Your task to perform on an android device: check google app version Image 0: 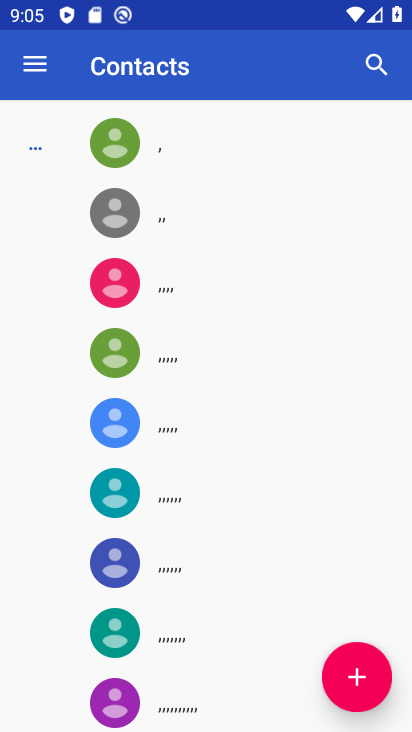
Step 0: press home button
Your task to perform on an android device: check google app version Image 1: 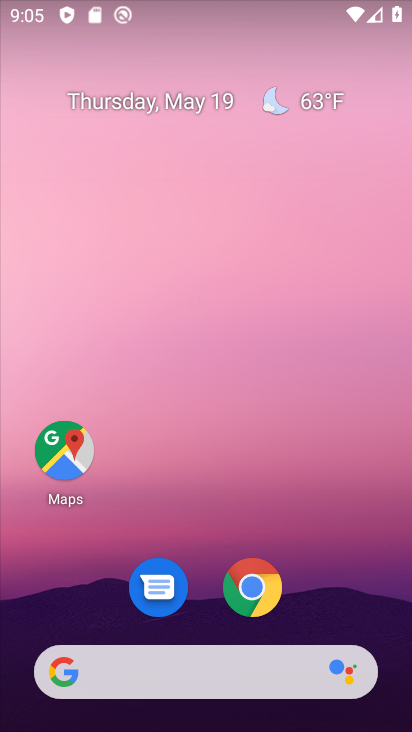
Step 1: drag from (212, 635) to (136, 37)
Your task to perform on an android device: check google app version Image 2: 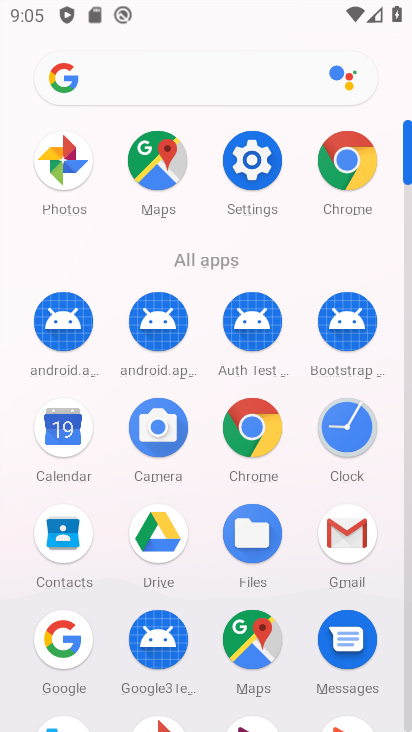
Step 2: drag from (60, 629) to (208, 284)
Your task to perform on an android device: check google app version Image 3: 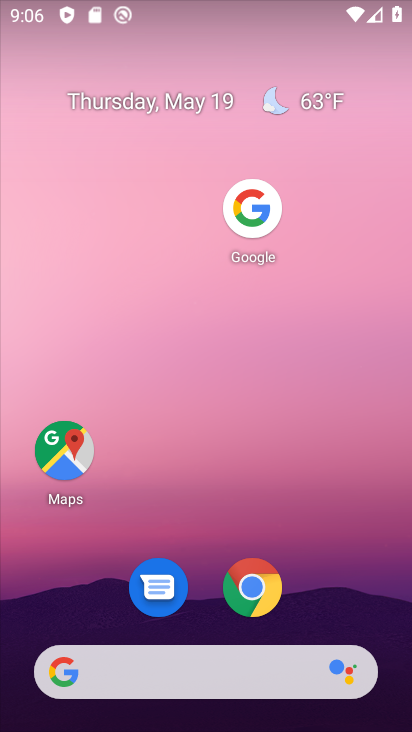
Step 3: click (242, 220)
Your task to perform on an android device: check google app version Image 4: 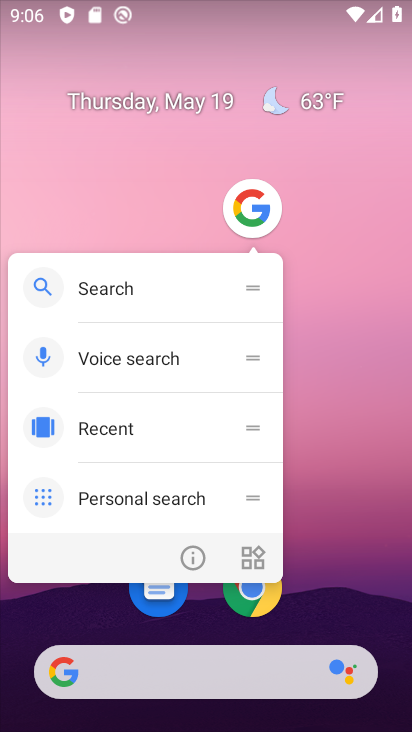
Step 4: click (191, 565)
Your task to perform on an android device: check google app version Image 5: 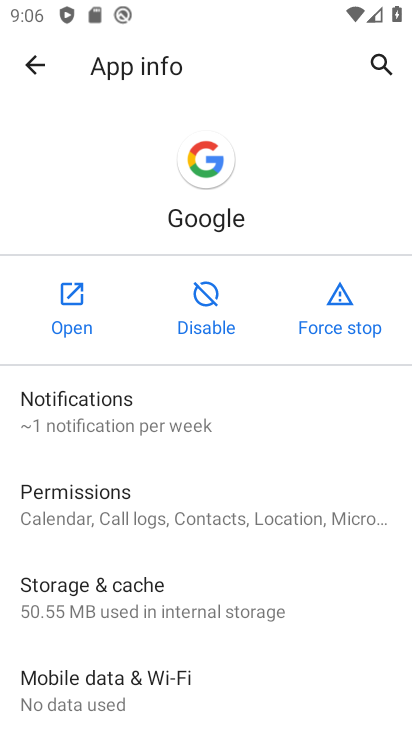
Step 5: drag from (249, 538) to (230, 130)
Your task to perform on an android device: check google app version Image 6: 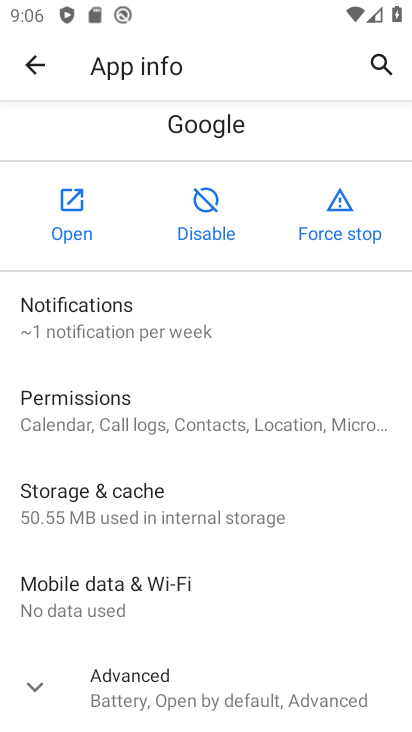
Step 6: click (94, 691)
Your task to perform on an android device: check google app version Image 7: 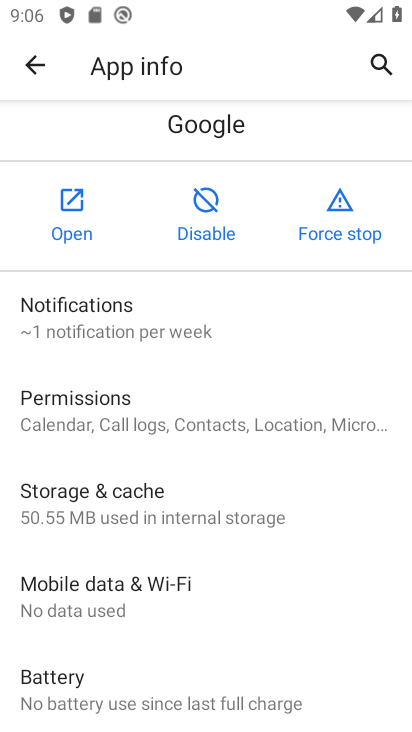
Step 7: drag from (159, 659) to (110, 159)
Your task to perform on an android device: check google app version Image 8: 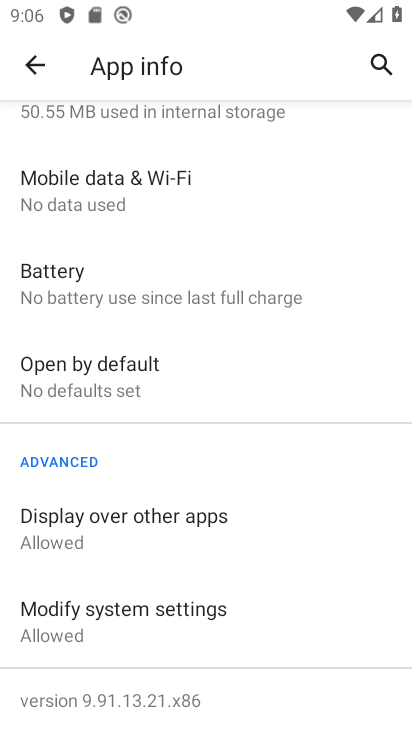
Step 8: click (158, 694)
Your task to perform on an android device: check google app version Image 9: 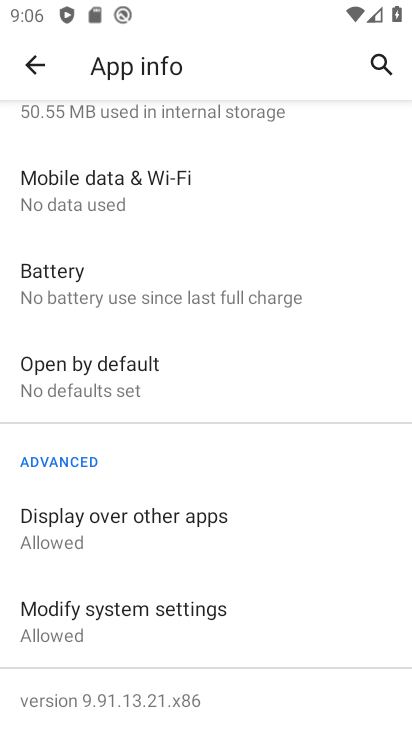
Step 9: task complete